Your task to perform on an android device: Open internet settings Image 0: 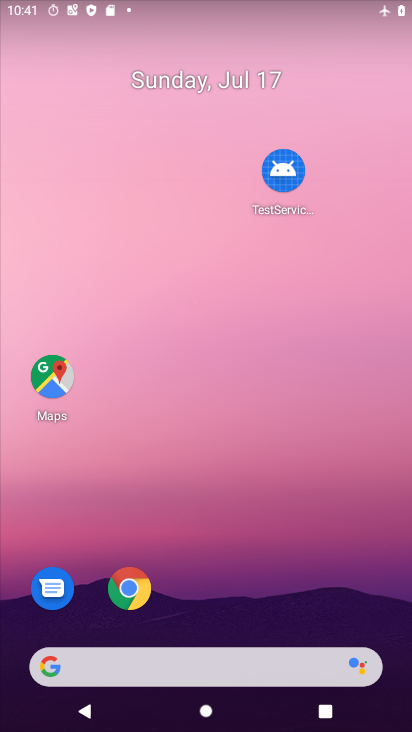
Step 0: drag from (191, 649) to (212, 140)
Your task to perform on an android device: Open internet settings Image 1: 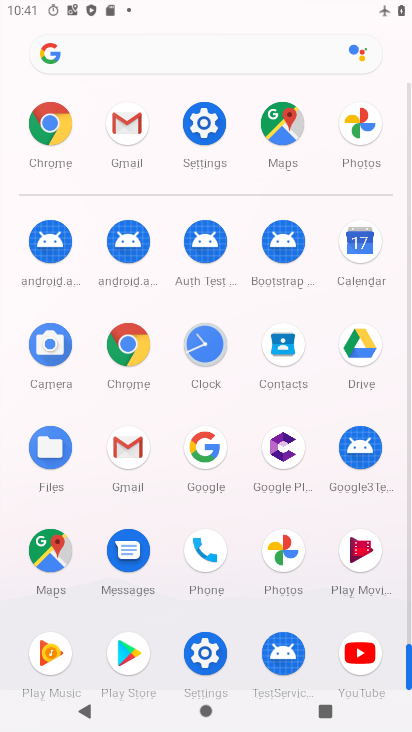
Step 1: click (204, 143)
Your task to perform on an android device: Open internet settings Image 2: 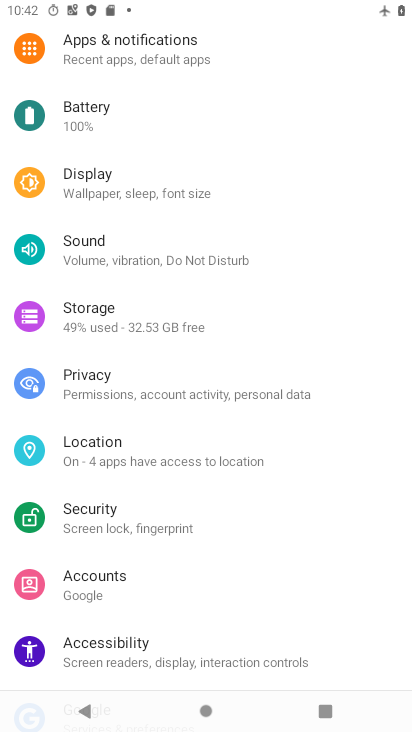
Step 2: drag from (180, 261) to (73, 708)
Your task to perform on an android device: Open internet settings Image 3: 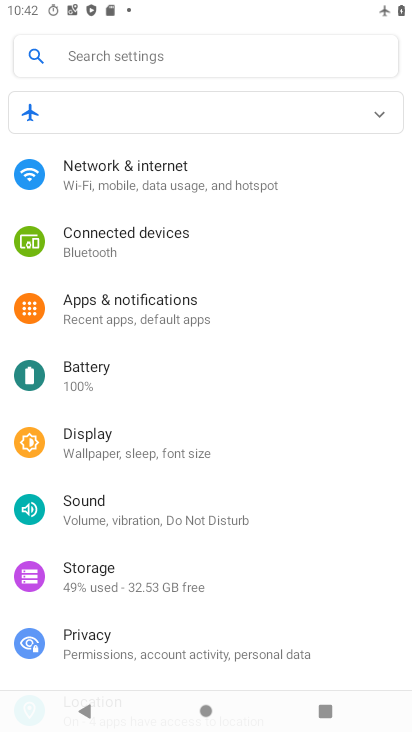
Step 3: click (162, 188)
Your task to perform on an android device: Open internet settings Image 4: 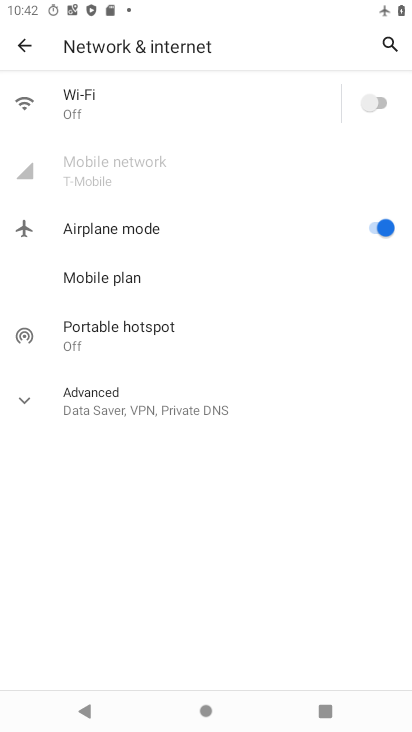
Step 4: click (250, 226)
Your task to perform on an android device: Open internet settings Image 5: 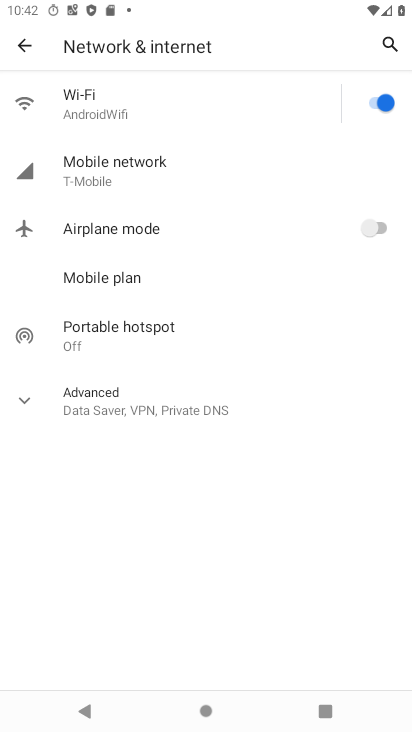
Step 5: task complete